Your task to perform on an android device: set default search engine in the chrome app Image 0: 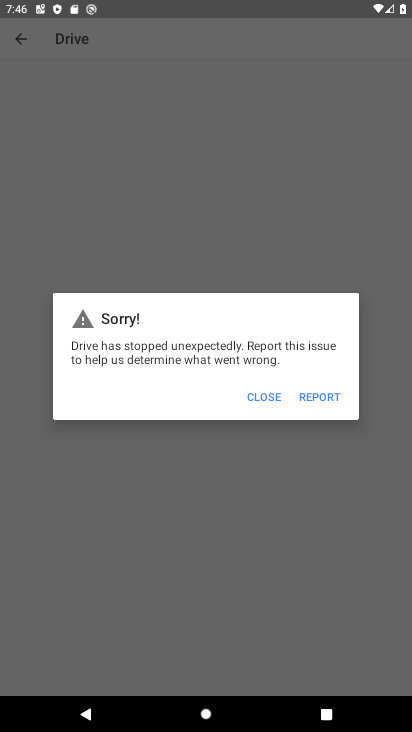
Step 0: click (271, 400)
Your task to perform on an android device: set default search engine in the chrome app Image 1: 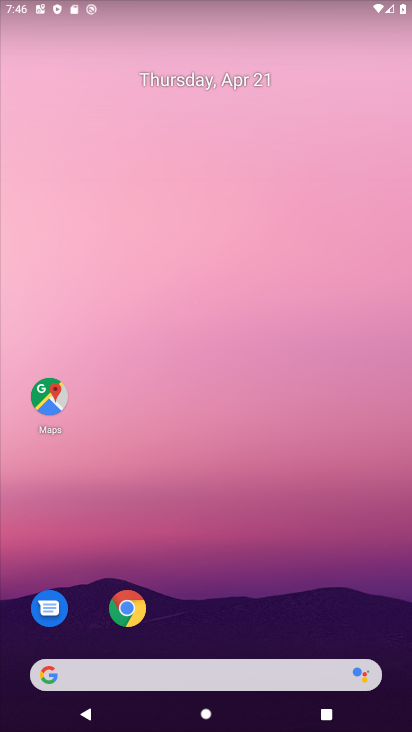
Step 1: press home button
Your task to perform on an android device: set default search engine in the chrome app Image 2: 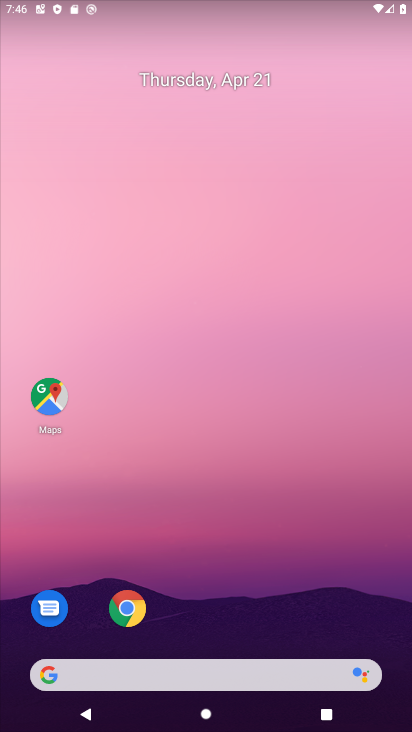
Step 2: drag from (183, 638) to (226, 103)
Your task to perform on an android device: set default search engine in the chrome app Image 3: 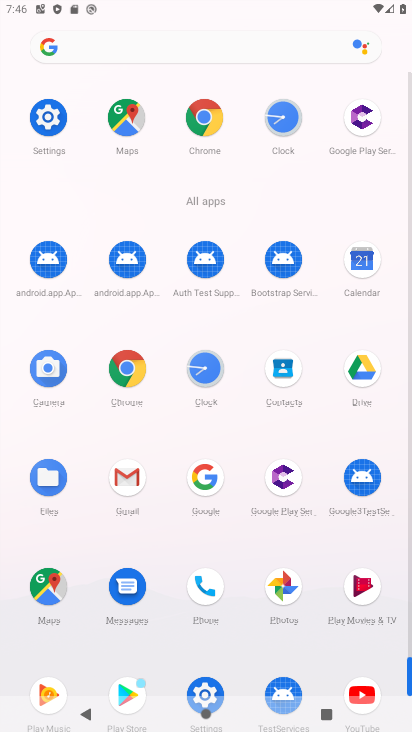
Step 3: click (121, 370)
Your task to perform on an android device: set default search engine in the chrome app Image 4: 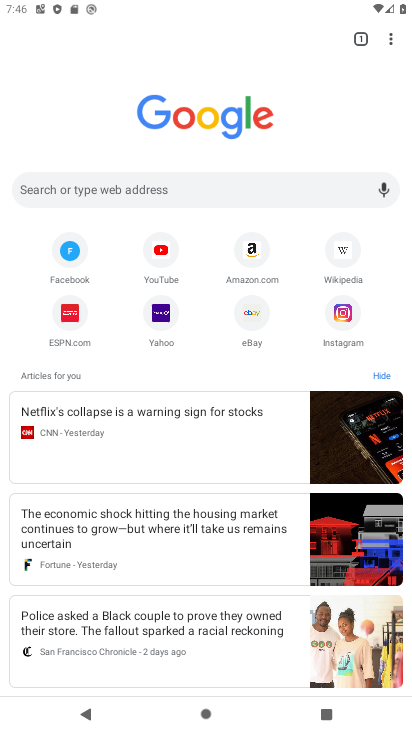
Step 4: click (391, 45)
Your task to perform on an android device: set default search engine in the chrome app Image 5: 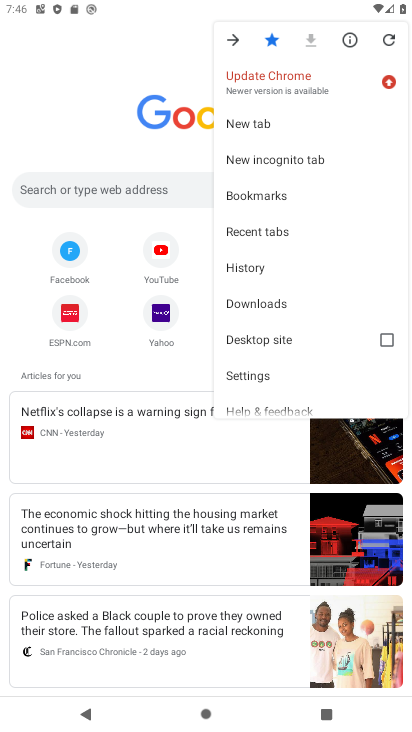
Step 5: drag from (271, 389) to (262, 280)
Your task to perform on an android device: set default search engine in the chrome app Image 6: 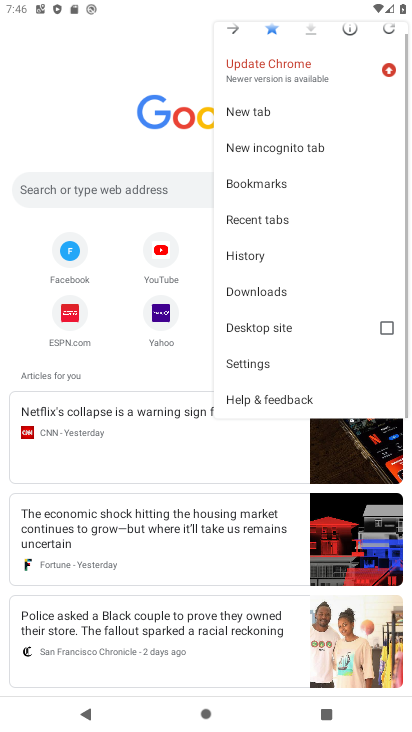
Step 6: click (237, 358)
Your task to perform on an android device: set default search engine in the chrome app Image 7: 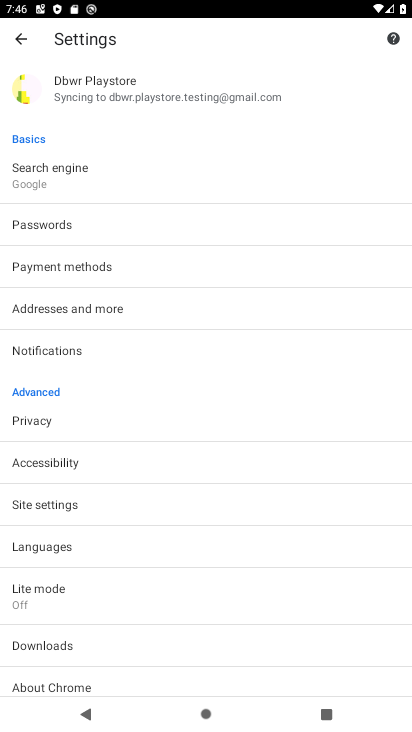
Step 7: click (82, 181)
Your task to perform on an android device: set default search engine in the chrome app Image 8: 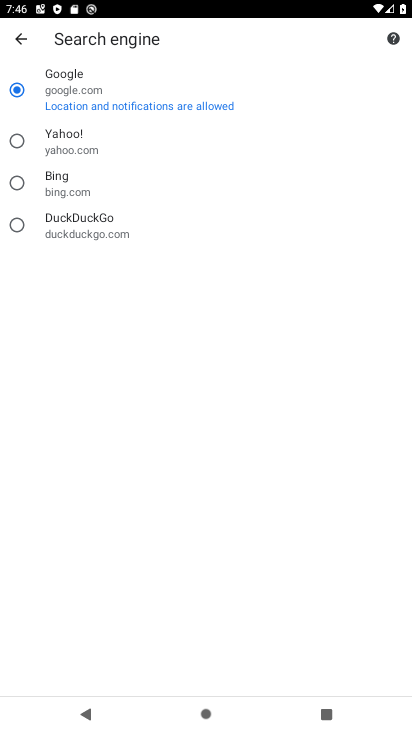
Step 8: click (13, 140)
Your task to perform on an android device: set default search engine in the chrome app Image 9: 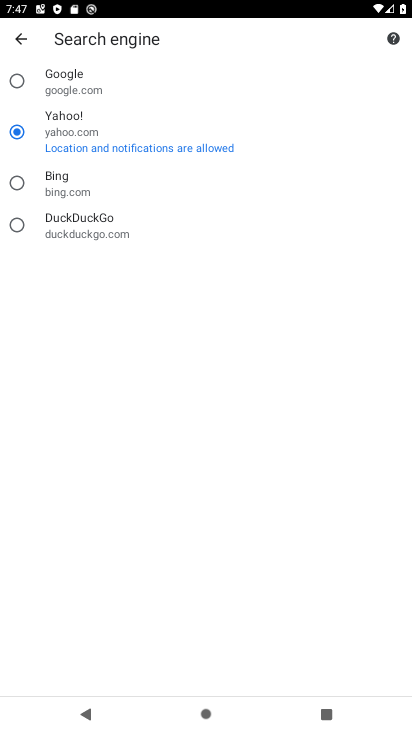
Step 9: task complete